Your task to perform on an android device: turn on wifi Image 0: 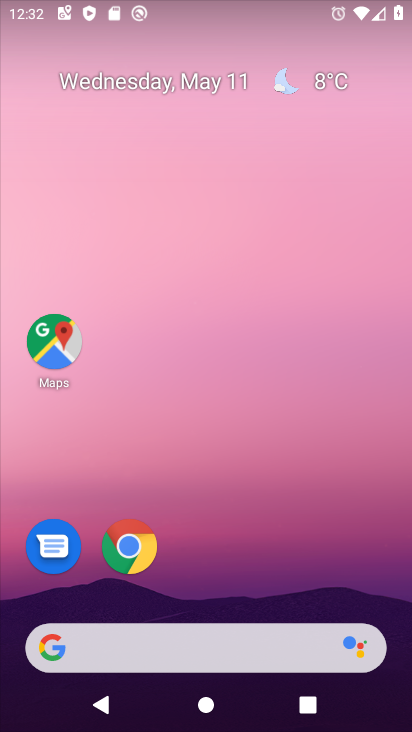
Step 0: drag from (226, 656) to (356, 108)
Your task to perform on an android device: turn on wifi Image 1: 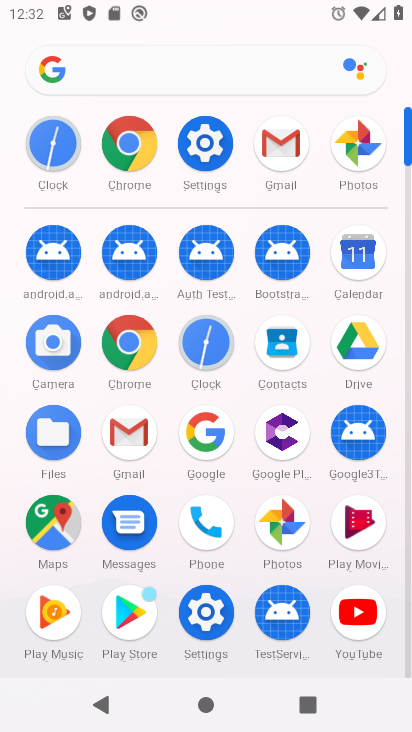
Step 1: click (212, 133)
Your task to perform on an android device: turn on wifi Image 2: 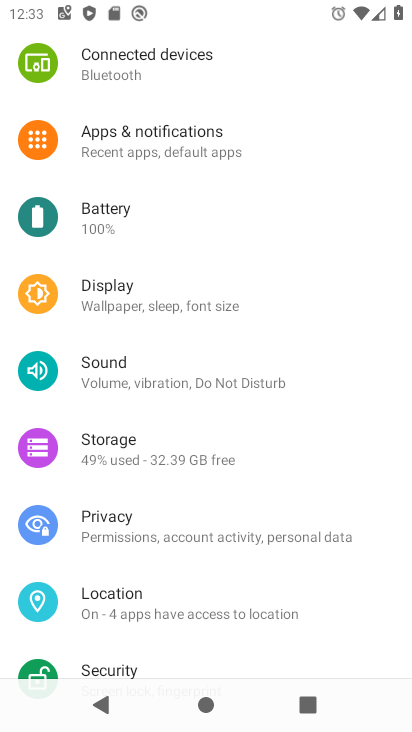
Step 2: drag from (218, 79) to (178, 497)
Your task to perform on an android device: turn on wifi Image 3: 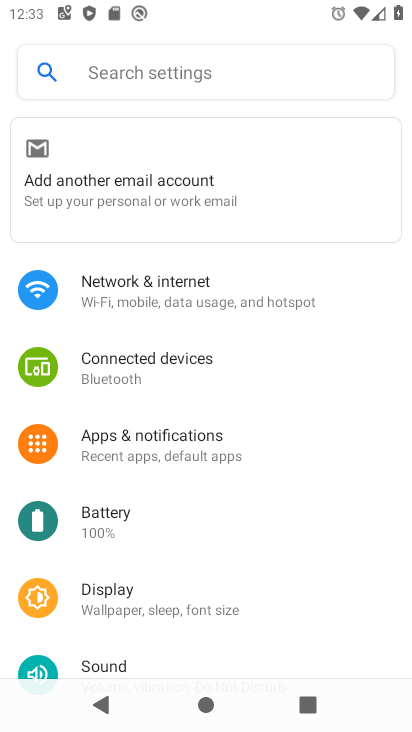
Step 3: click (168, 308)
Your task to perform on an android device: turn on wifi Image 4: 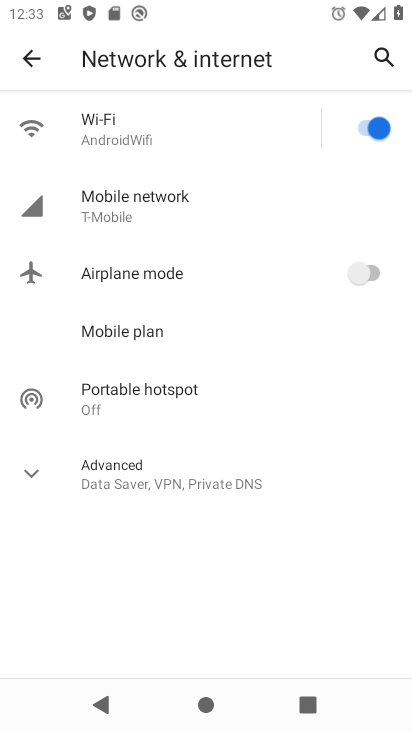
Step 4: task complete